Your task to perform on an android device: turn vacation reply on in the gmail app Image 0: 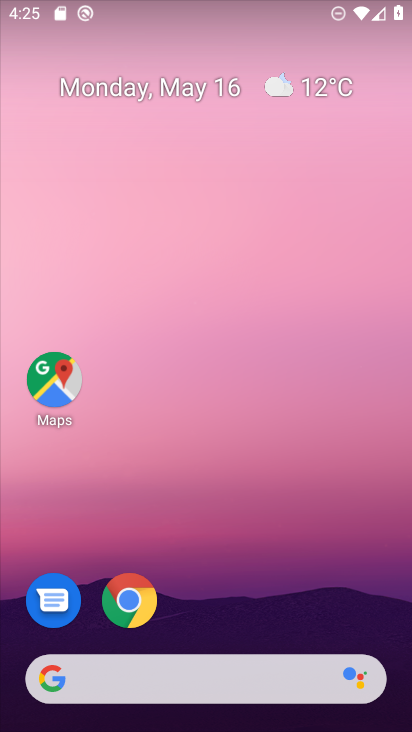
Step 0: drag from (280, 484) to (267, 15)
Your task to perform on an android device: turn vacation reply on in the gmail app Image 1: 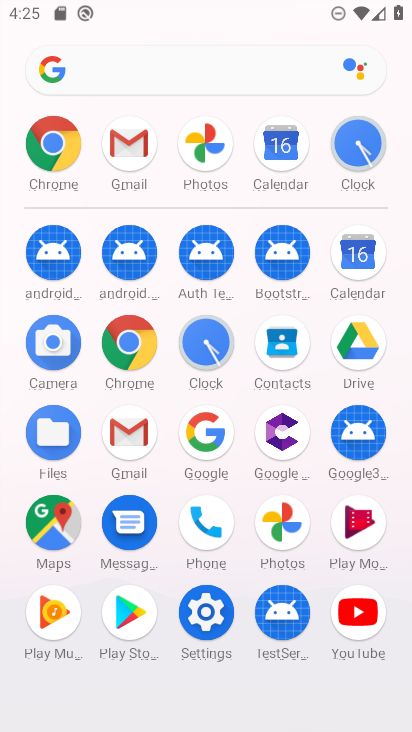
Step 1: click (132, 153)
Your task to perform on an android device: turn vacation reply on in the gmail app Image 2: 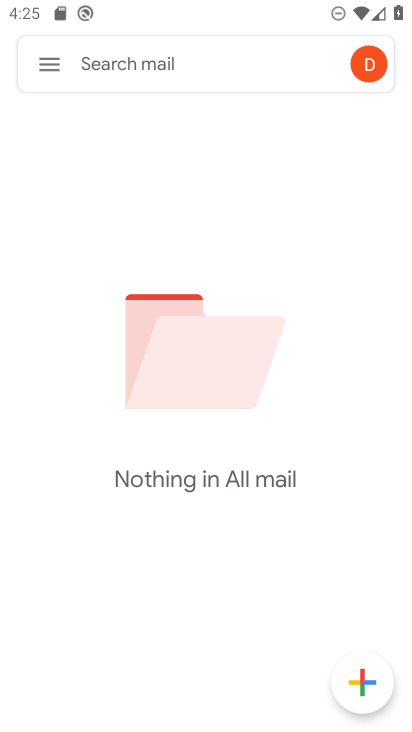
Step 2: click (50, 60)
Your task to perform on an android device: turn vacation reply on in the gmail app Image 3: 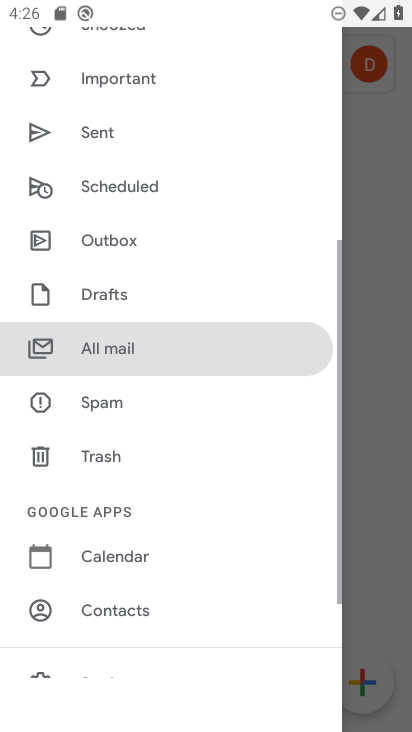
Step 3: drag from (245, 564) to (283, 41)
Your task to perform on an android device: turn vacation reply on in the gmail app Image 4: 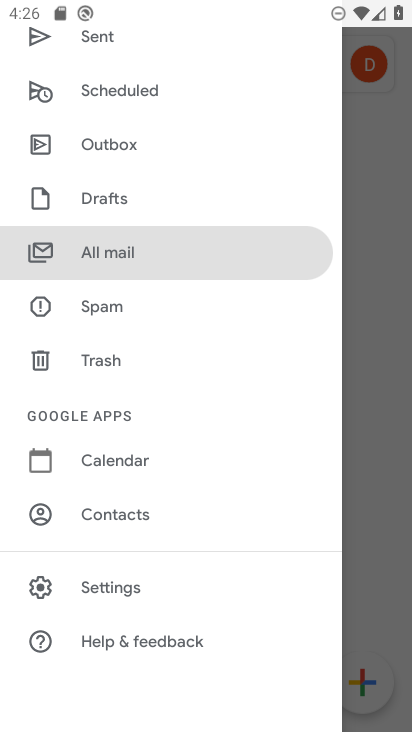
Step 4: click (122, 585)
Your task to perform on an android device: turn vacation reply on in the gmail app Image 5: 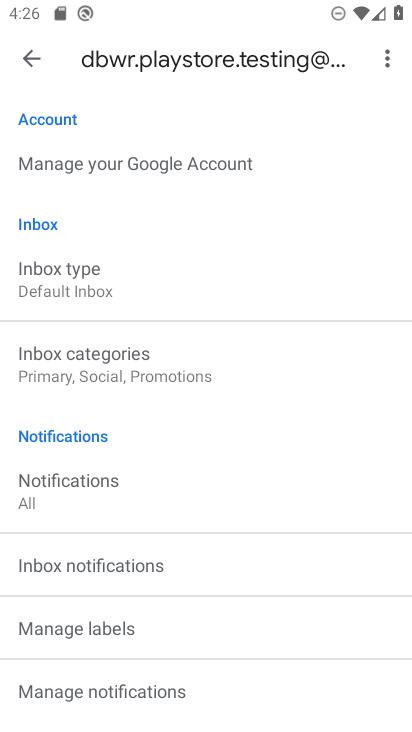
Step 5: drag from (196, 644) to (280, 223)
Your task to perform on an android device: turn vacation reply on in the gmail app Image 6: 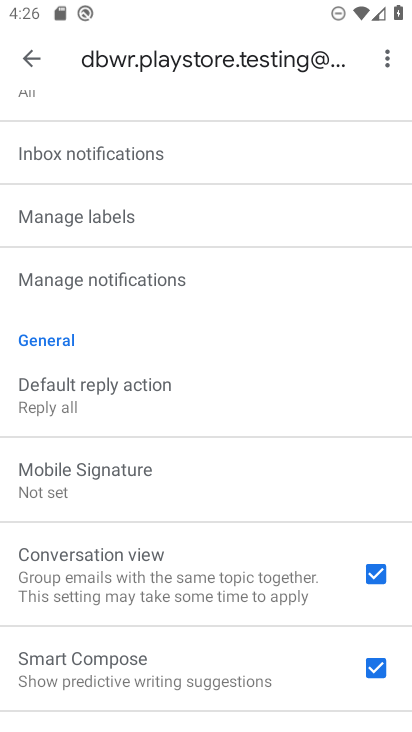
Step 6: drag from (206, 252) to (204, 679)
Your task to perform on an android device: turn vacation reply on in the gmail app Image 7: 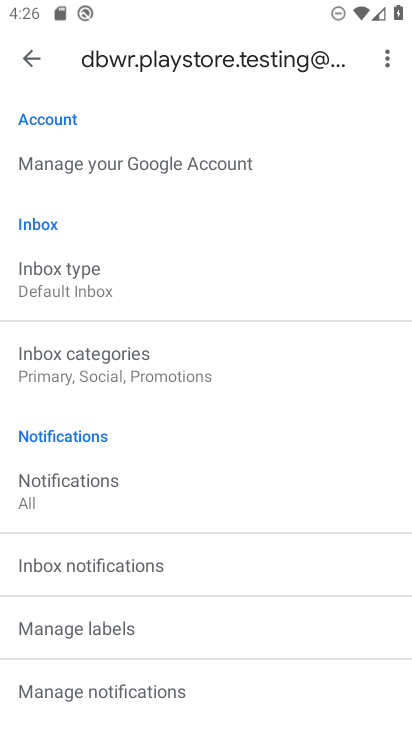
Step 7: drag from (233, 650) to (304, 135)
Your task to perform on an android device: turn vacation reply on in the gmail app Image 8: 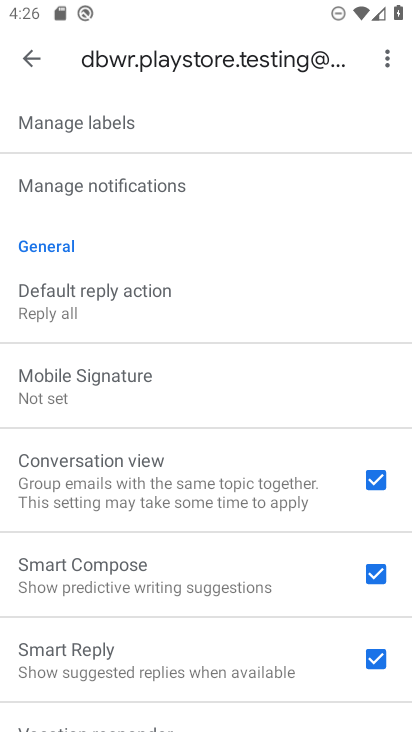
Step 8: drag from (218, 620) to (273, 192)
Your task to perform on an android device: turn vacation reply on in the gmail app Image 9: 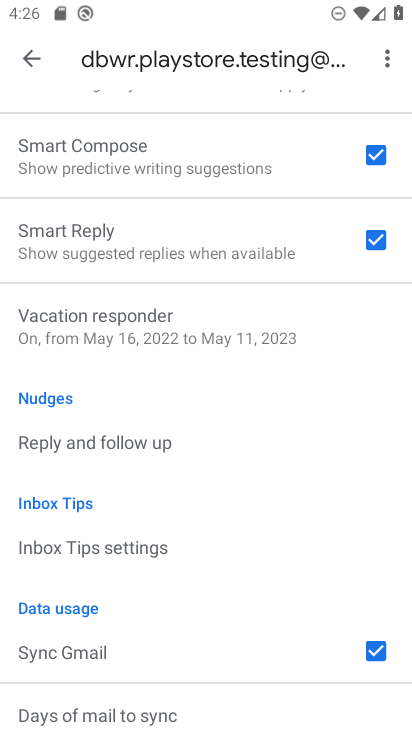
Step 9: click (165, 335)
Your task to perform on an android device: turn vacation reply on in the gmail app Image 10: 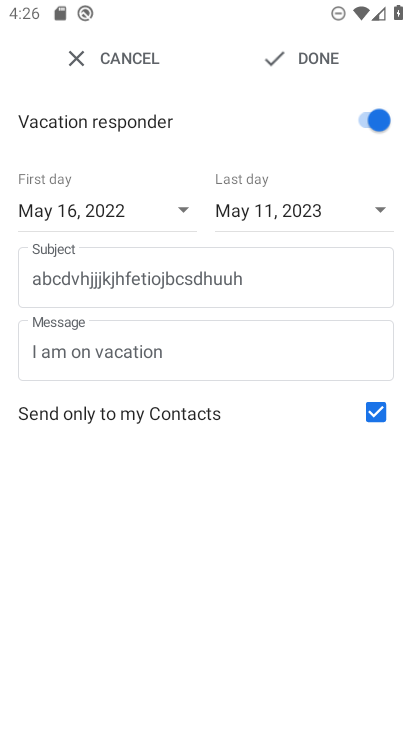
Step 10: task complete